Your task to perform on an android device: change timer sound Image 0: 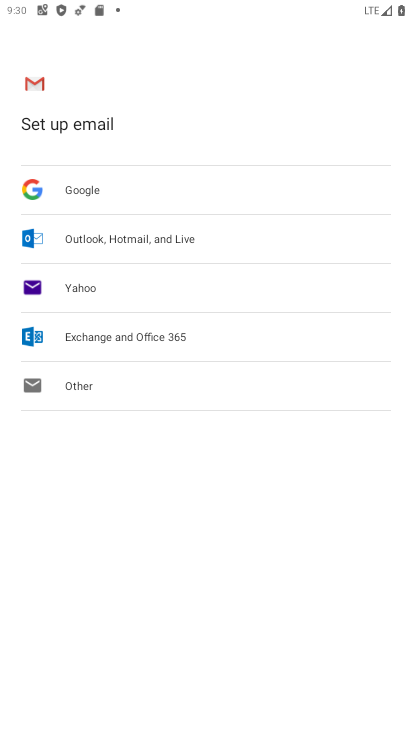
Step 0: press home button
Your task to perform on an android device: change timer sound Image 1: 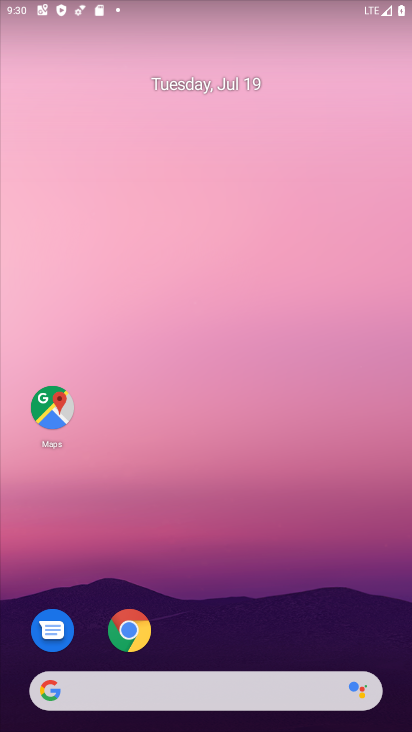
Step 1: drag from (239, 686) to (251, 254)
Your task to perform on an android device: change timer sound Image 2: 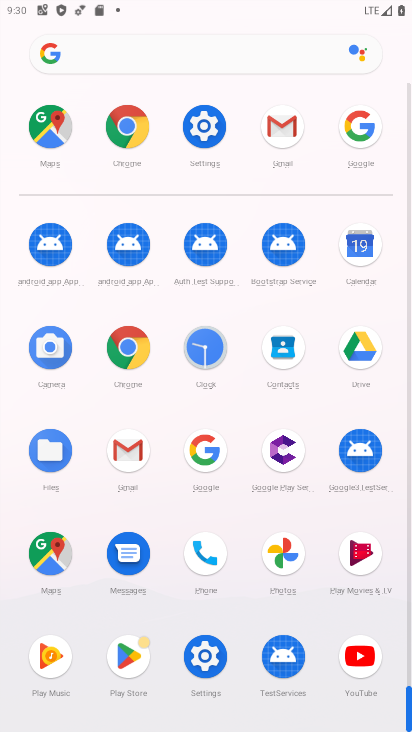
Step 2: click (207, 366)
Your task to perform on an android device: change timer sound Image 3: 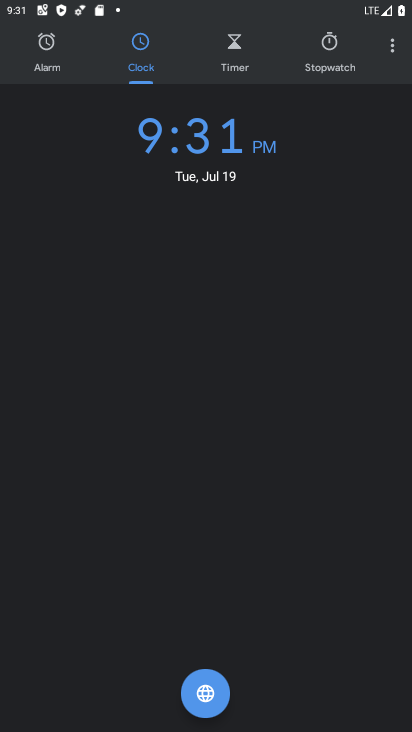
Step 3: click (407, 55)
Your task to perform on an android device: change timer sound Image 4: 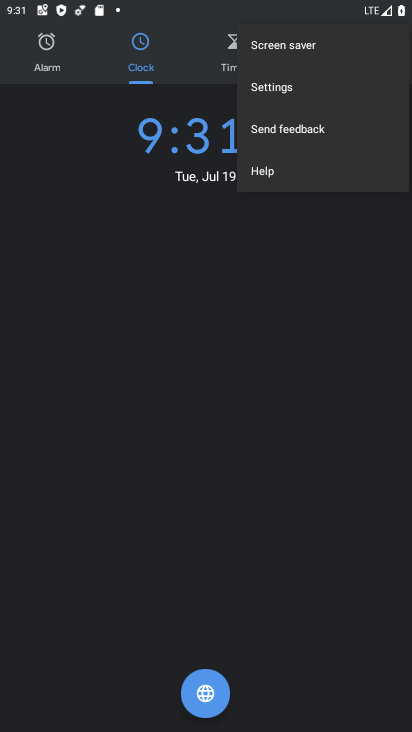
Step 4: click (285, 94)
Your task to perform on an android device: change timer sound Image 5: 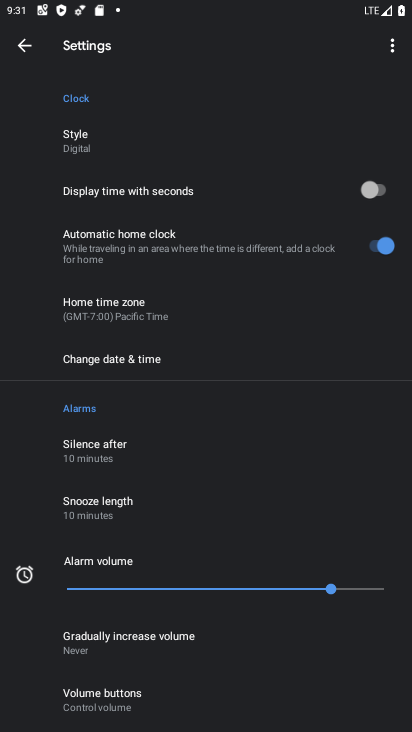
Step 5: drag from (139, 537) to (157, 281)
Your task to perform on an android device: change timer sound Image 6: 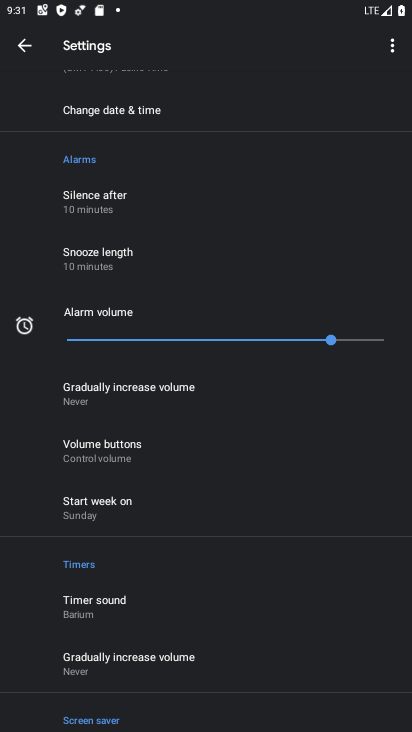
Step 6: drag from (153, 558) to (167, 397)
Your task to perform on an android device: change timer sound Image 7: 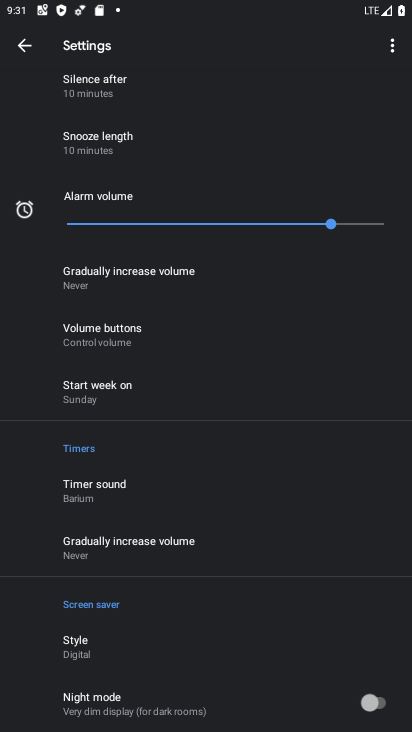
Step 7: click (126, 493)
Your task to perform on an android device: change timer sound Image 8: 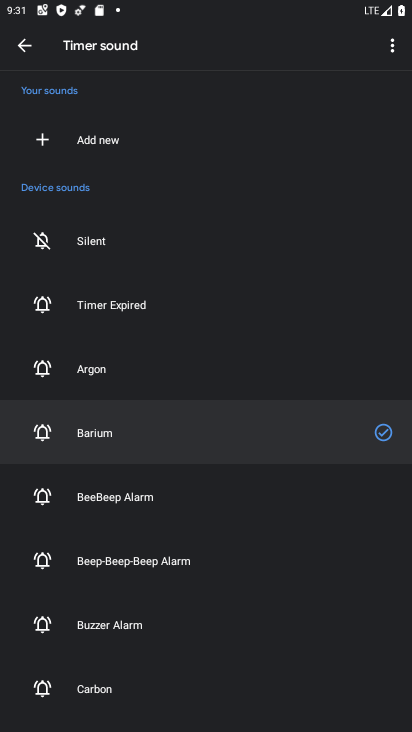
Step 8: click (116, 508)
Your task to perform on an android device: change timer sound Image 9: 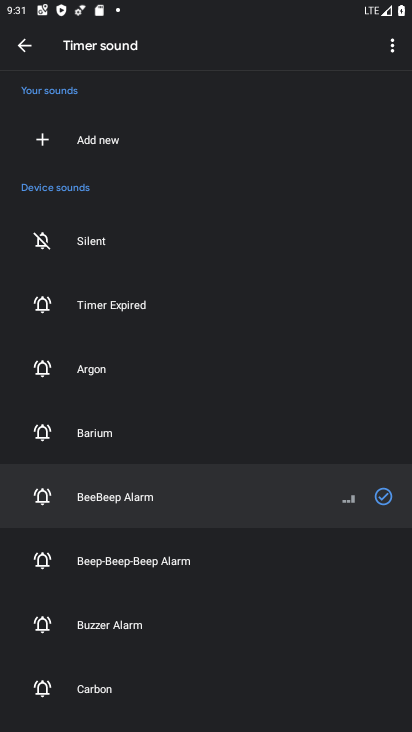
Step 9: task complete